Your task to perform on an android device: change text size in settings app Image 0: 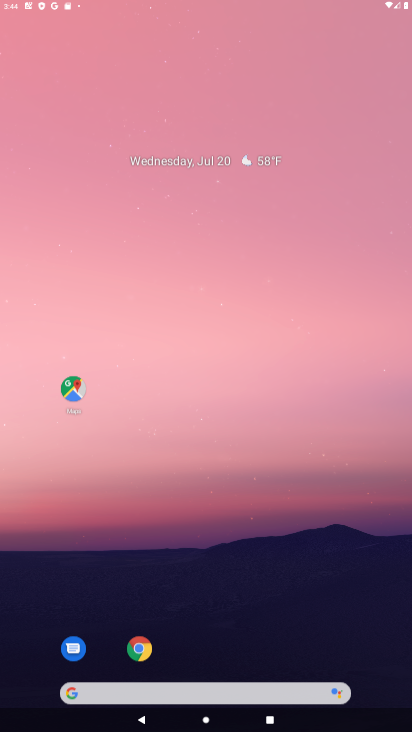
Step 0: press home button
Your task to perform on an android device: change text size in settings app Image 1: 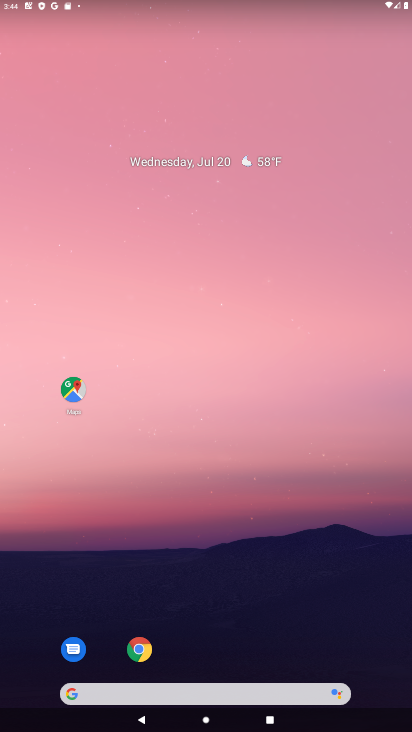
Step 1: click (245, 158)
Your task to perform on an android device: change text size in settings app Image 2: 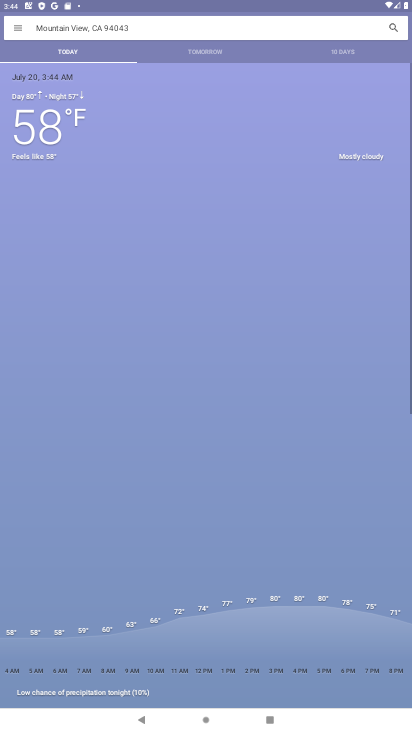
Step 2: click (202, 54)
Your task to perform on an android device: change text size in settings app Image 3: 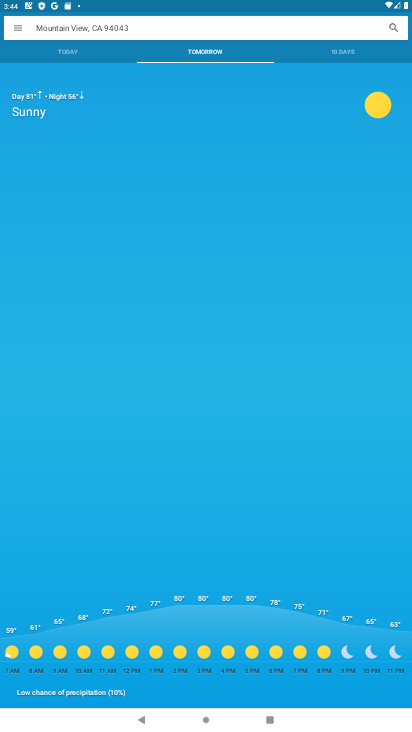
Step 3: press home button
Your task to perform on an android device: change text size in settings app Image 4: 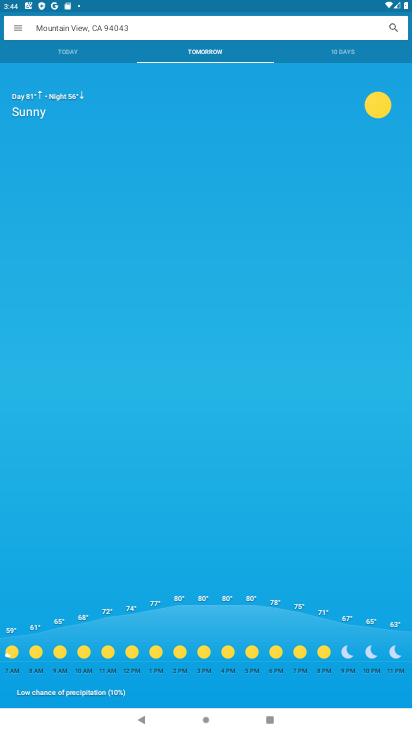
Step 4: press home button
Your task to perform on an android device: change text size in settings app Image 5: 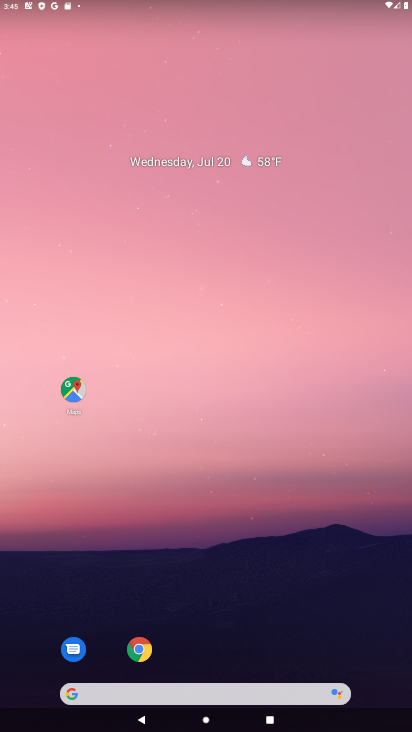
Step 5: drag from (228, 725) to (242, 275)
Your task to perform on an android device: change text size in settings app Image 6: 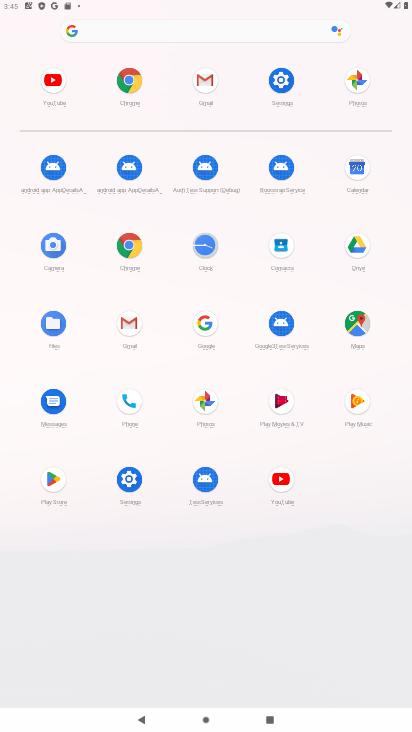
Step 6: click (135, 476)
Your task to perform on an android device: change text size in settings app Image 7: 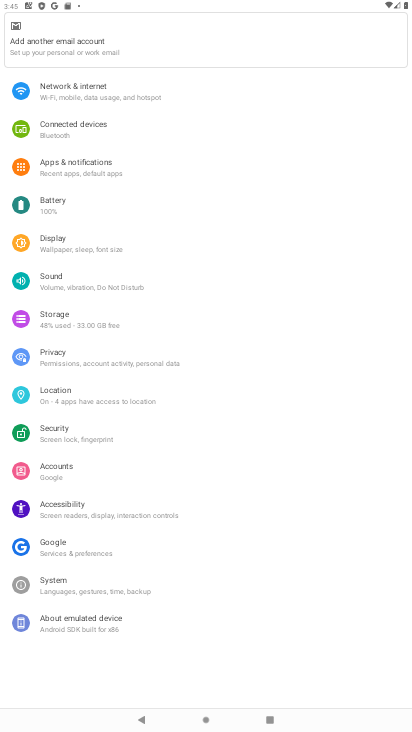
Step 7: click (109, 250)
Your task to perform on an android device: change text size in settings app Image 8: 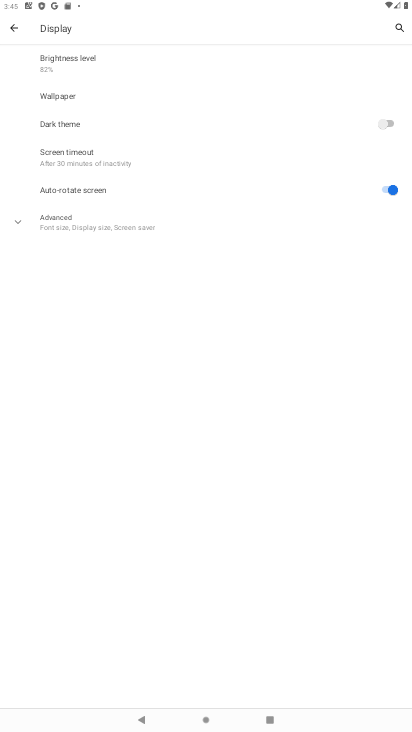
Step 8: click (94, 229)
Your task to perform on an android device: change text size in settings app Image 9: 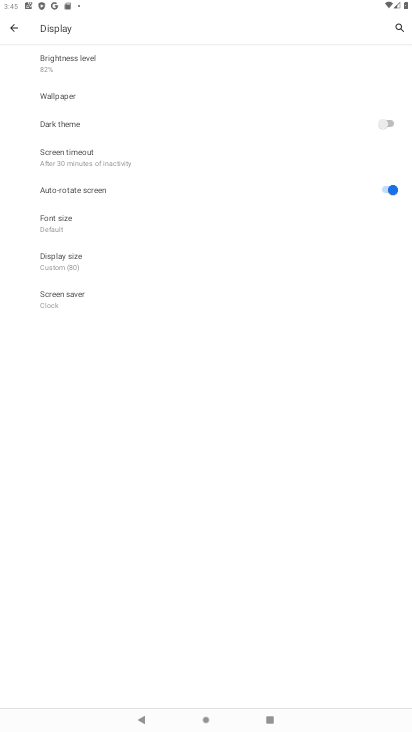
Step 9: click (58, 219)
Your task to perform on an android device: change text size in settings app Image 10: 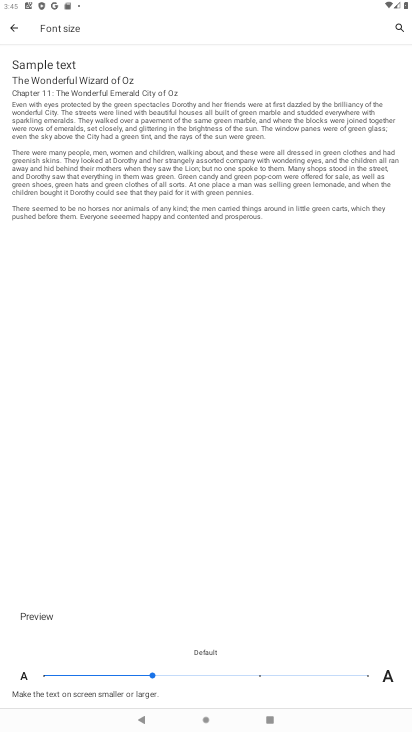
Step 10: click (369, 673)
Your task to perform on an android device: change text size in settings app Image 11: 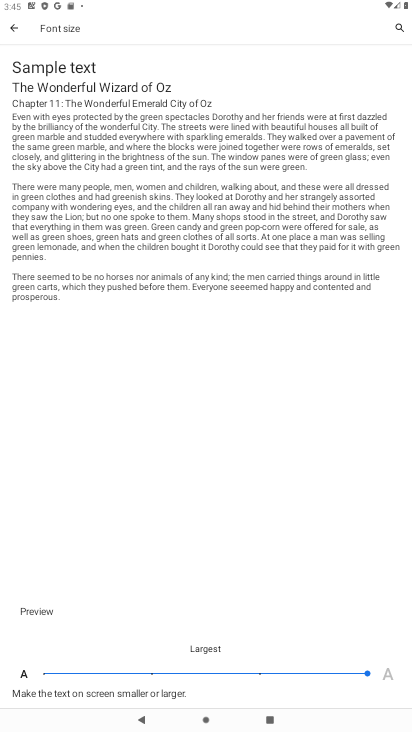
Step 11: task complete